Your task to perform on an android device: open a bookmark in the chrome app Image 0: 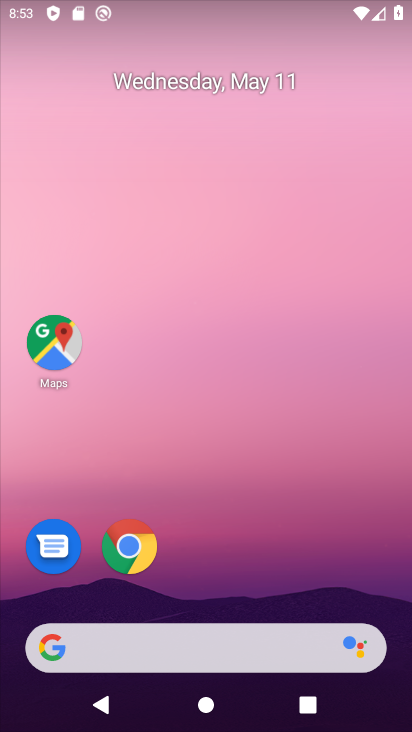
Step 0: click (141, 542)
Your task to perform on an android device: open a bookmark in the chrome app Image 1: 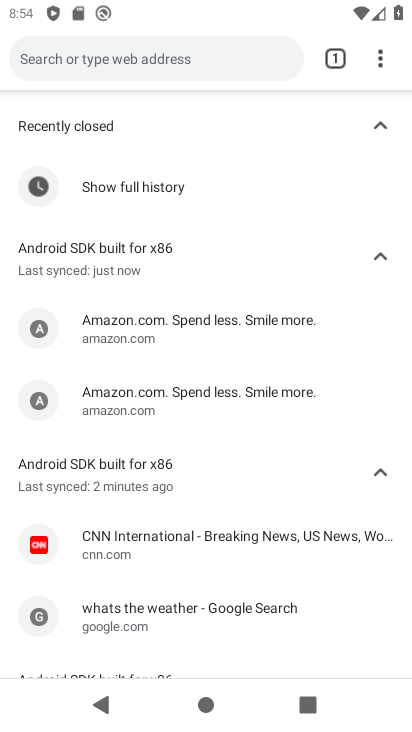
Step 1: click (386, 52)
Your task to perform on an android device: open a bookmark in the chrome app Image 2: 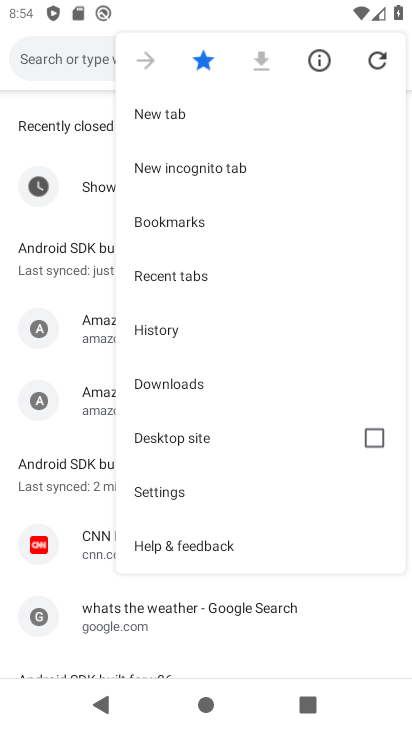
Step 2: click (215, 220)
Your task to perform on an android device: open a bookmark in the chrome app Image 3: 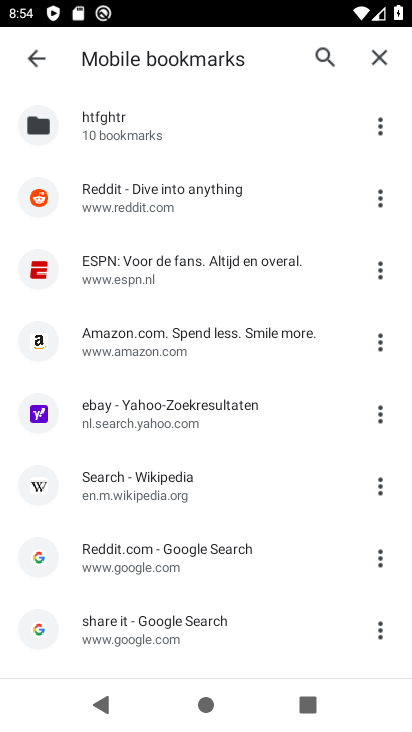
Step 3: click (158, 350)
Your task to perform on an android device: open a bookmark in the chrome app Image 4: 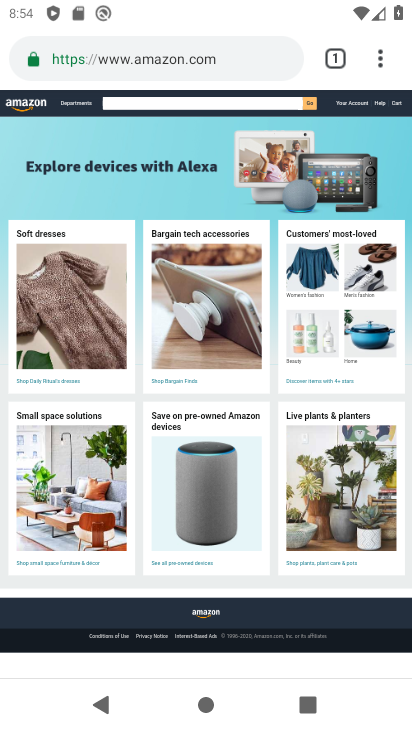
Step 4: task complete